Your task to perform on an android device: Open Youtube and go to "Your channel" Image 0: 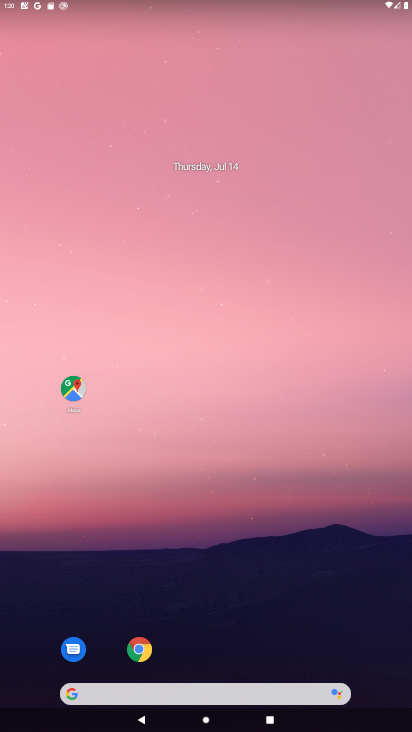
Step 0: drag from (289, 665) to (352, 113)
Your task to perform on an android device: Open Youtube and go to "Your channel" Image 1: 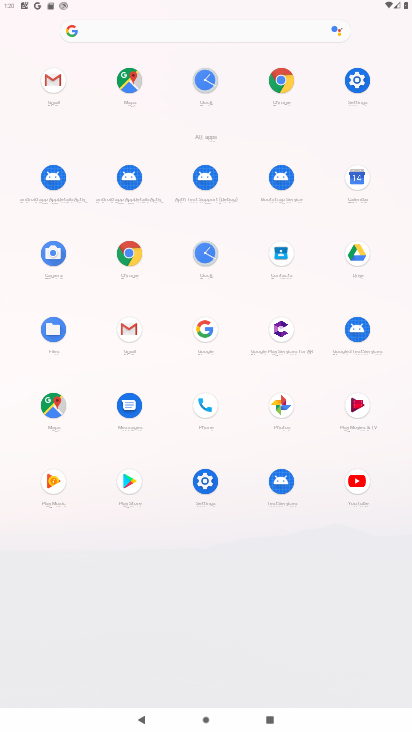
Step 1: click (358, 485)
Your task to perform on an android device: Open Youtube and go to "Your channel" Image 2: 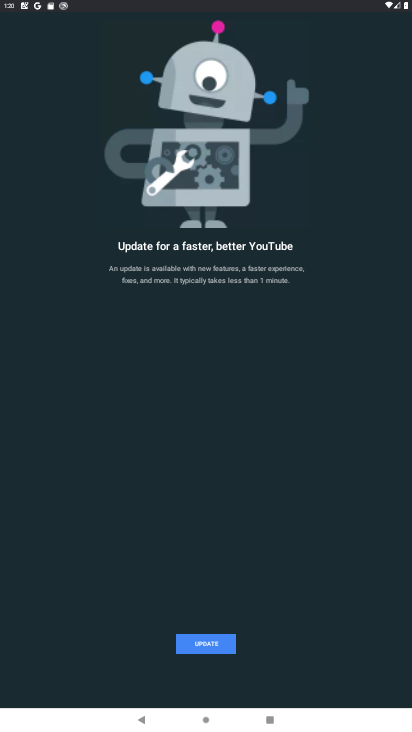
Step 2: click (210, 644)
Your task to perform on an android device: Open Youtube and go to "Your channel" Image 3: 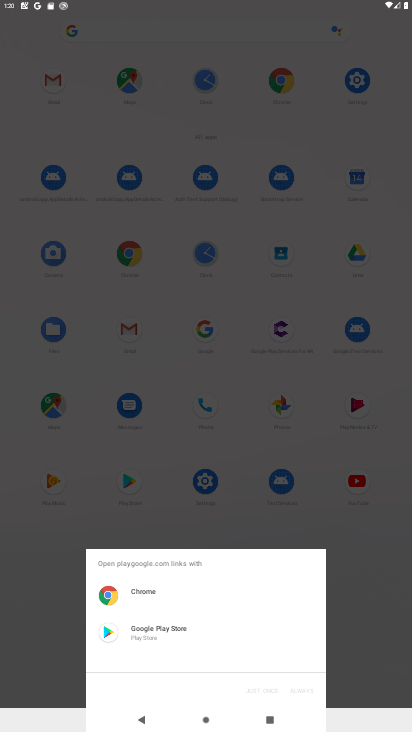
Step 3: click (144, 636)
Your task to perform on an android device: Open Youtube and go to "Your channel" Image 4: 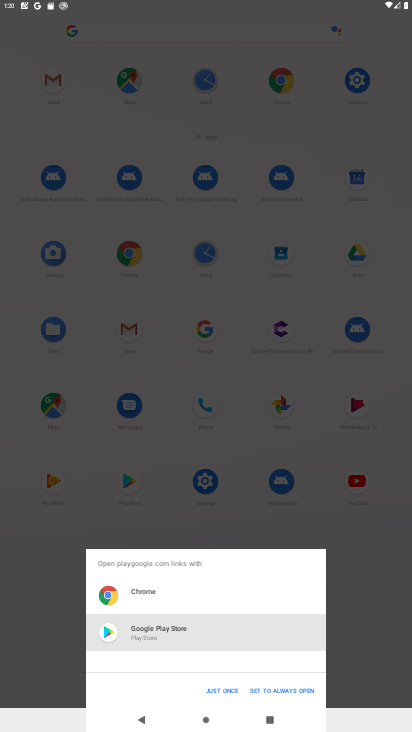
Step 4: click (225, 689)
Your task to perform on an android device: Open Youtube and go to "Your channel" Image 5: 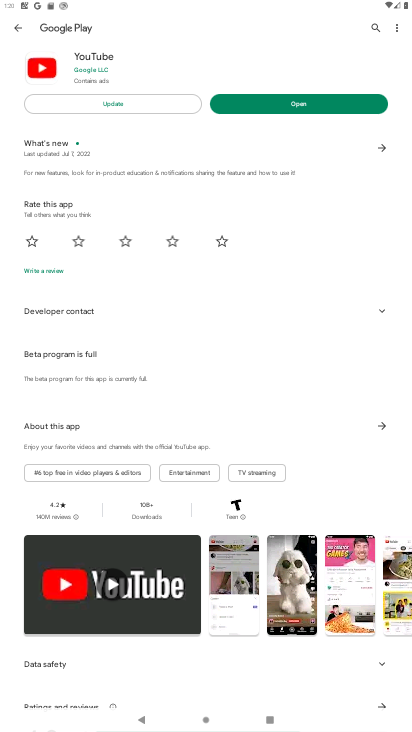
Step 5: click (134, 102)
Your task to perform on an android device: Open Youtube and go to "Your channel" Image 6: 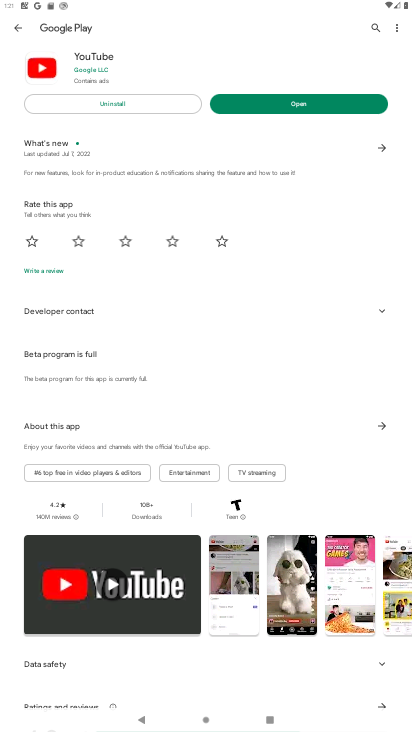
Step 6: click (292, 114)
Your task to perform on an android device: Open Youtube and go to "Your channel" Image 7: 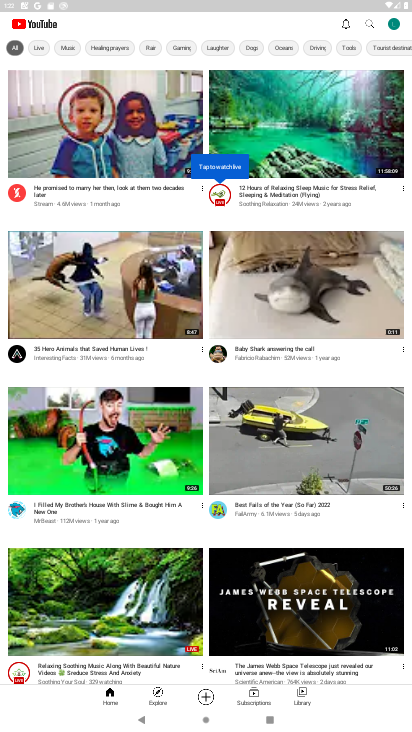
Step 7: click (391, 23)
Your task to perform on an android device: Open Youtube and go to "Your channel" Image 8: 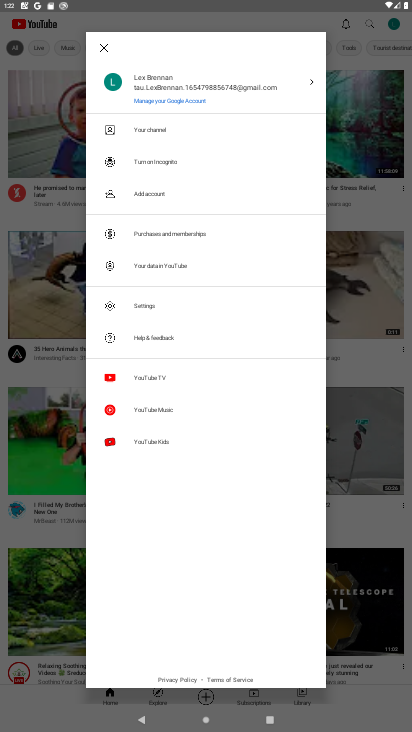
Step 8: click (142, 132)
Your task to perform on an android device: Open Youtube and go to "Your channel" Image 9: 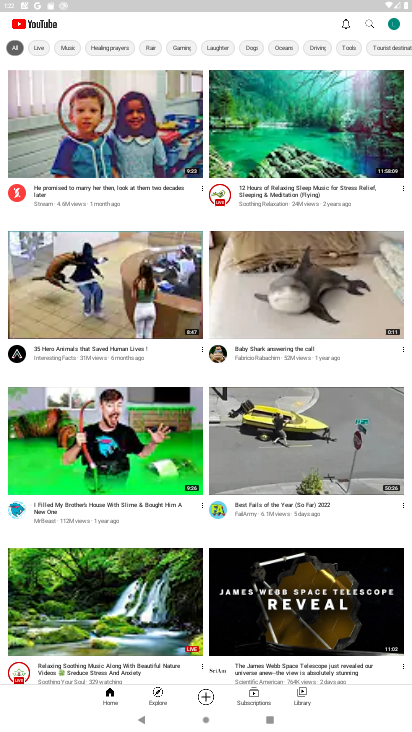
Step 9: task complete